Your task to perform on an android device: Turn off the flashlight Image 0: 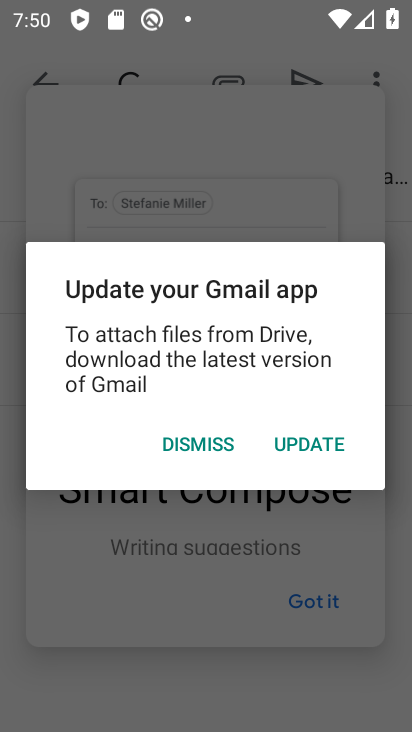
Step 0: press home button
Your task to perform on an android device: Turn off the flashlight Image 1: 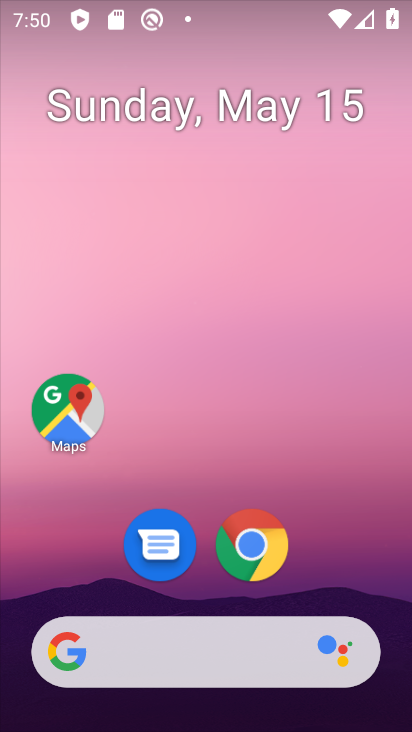
Step 1: drag from (266, 5) to (222, 464)
Your task to perform on an android device: Turn off the flashlight Image 2: 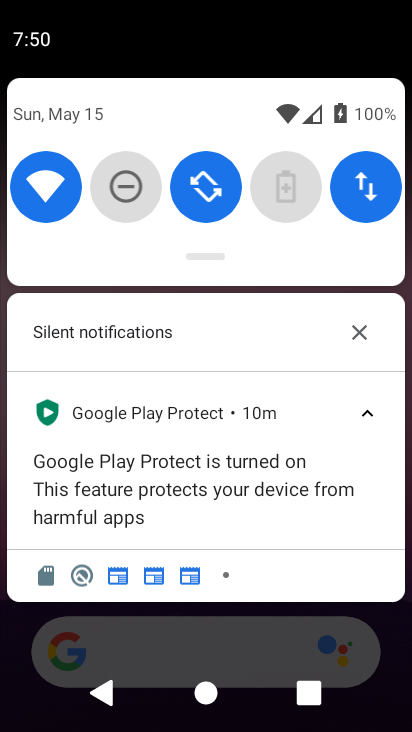
Step 2: drag from (244, 112) to (228, 471)
Your task to perform on an android device: Turn off the flashlight Image 3: 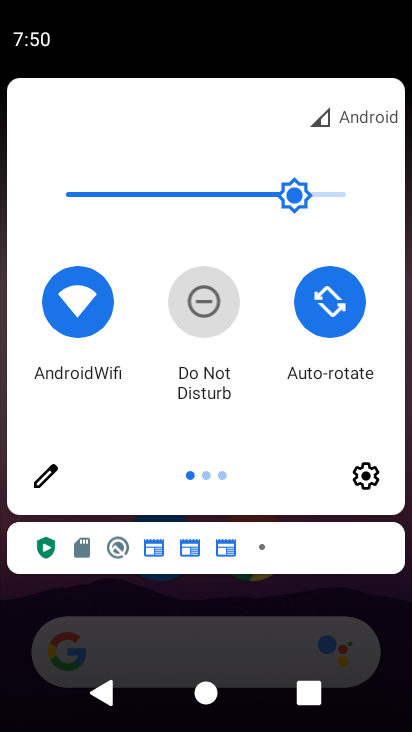
Step 3: click (34, 480)
Your task to perform on an android device: Turn off the flashlight Image 4: 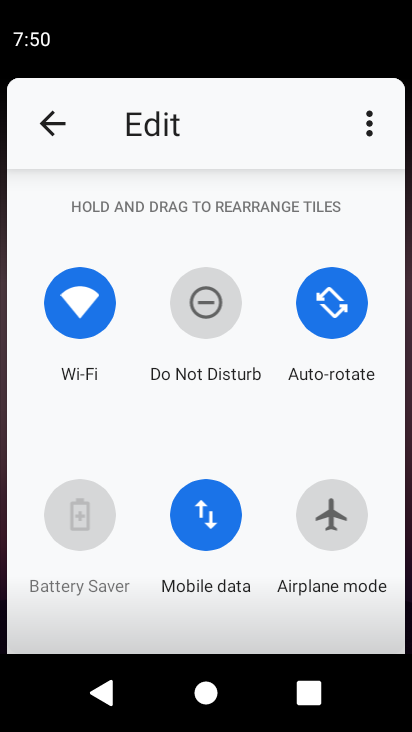
Step 4: task complete